Your task to perform on an android device: What is the recent news? Image 0: 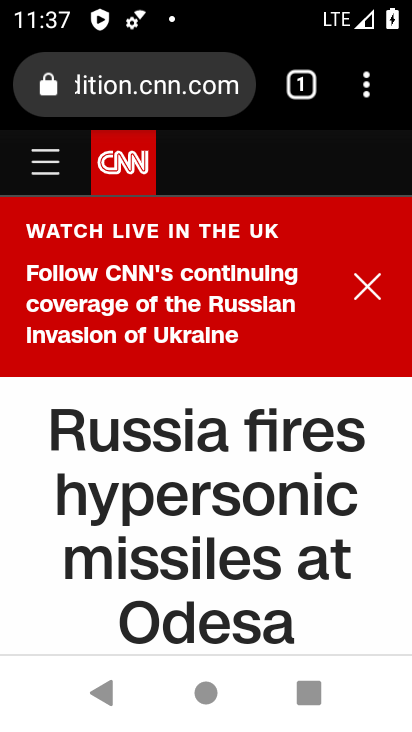
Step 0: press back button
Your task to perform on an android device: What is the recent news? Image 1: 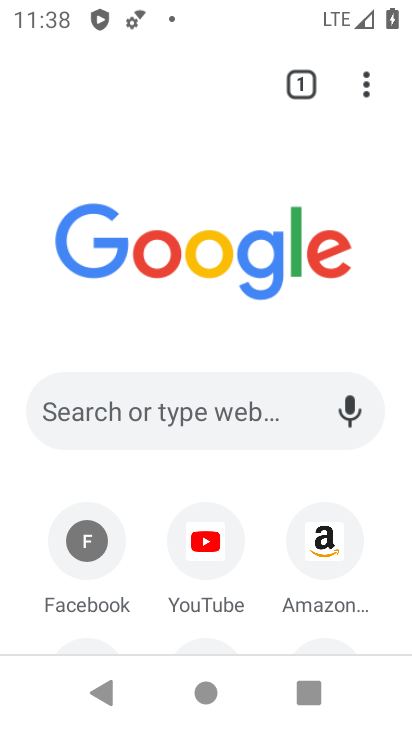
Step 1: task complete